Your task to perform on an android device: change the clock display to show seconds Image 0: 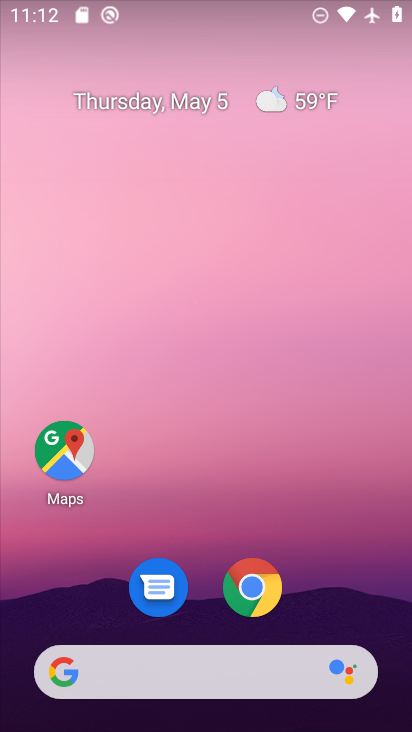
Step 0: drag from (351, 569) to (188, 7)
Your task to perform on an android device: change the clock display to show seconds Image 1: 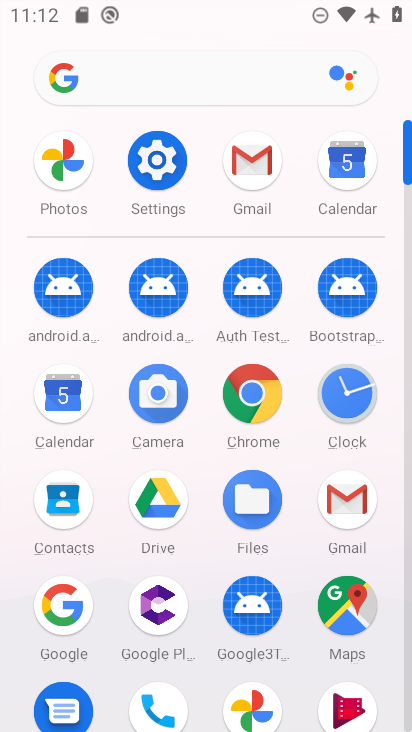
Step 1: drag from (7, 581) to (33, 212)
Your task to perform on an android device: change the clock display to show seconds Image 2: 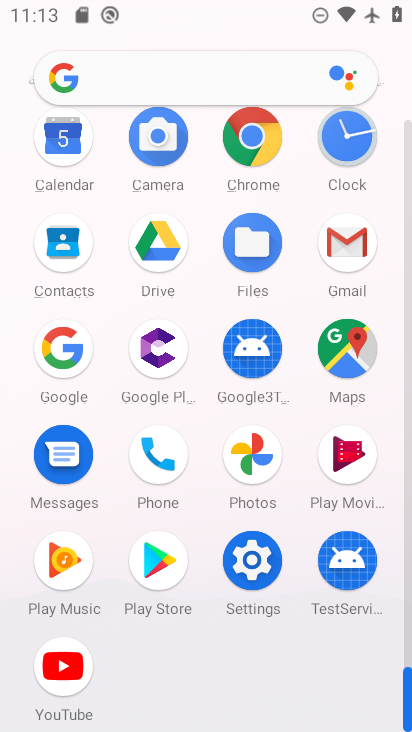
Step 2: drag from (9, 645) to (16, 293)
Your task to perform on an android device: change the clock display to show seconds Image 3: 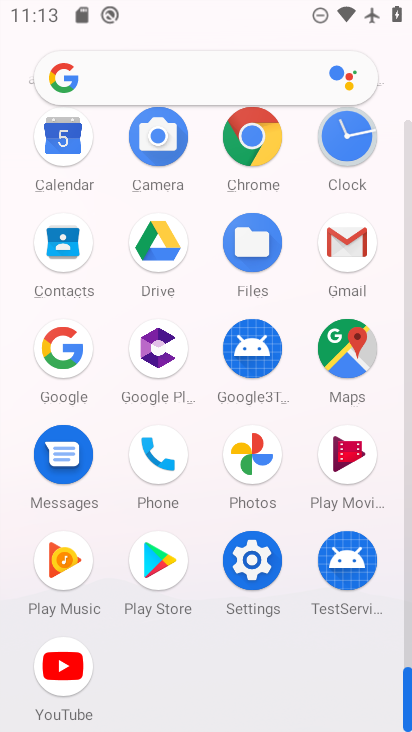
Step 3: click (344, 138)
Your task to perform on an android device: change the clock display to show seconds Image 4: 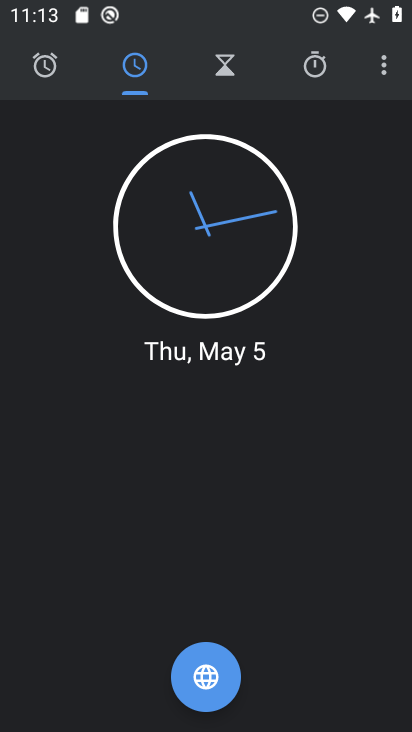
Step 4: click (379, 69)
Your task to perform on an android device: change the clock display to show seconds Image 5: 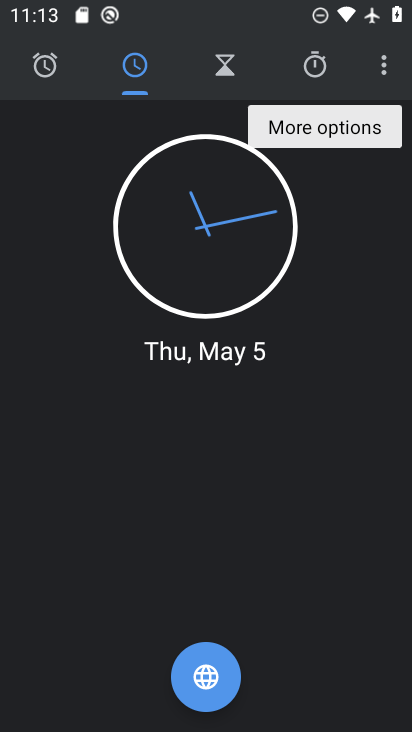
Step 5: click (377, 64)
Your task to perform on an android device: change the clock display to show seconds Image 6: 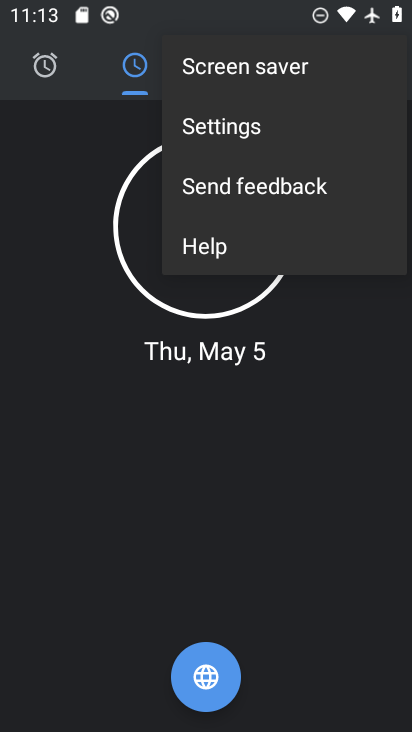
Step 6: click (266, 128)
Your task to perform on an android device: change the clock display to show seconds Image 7: 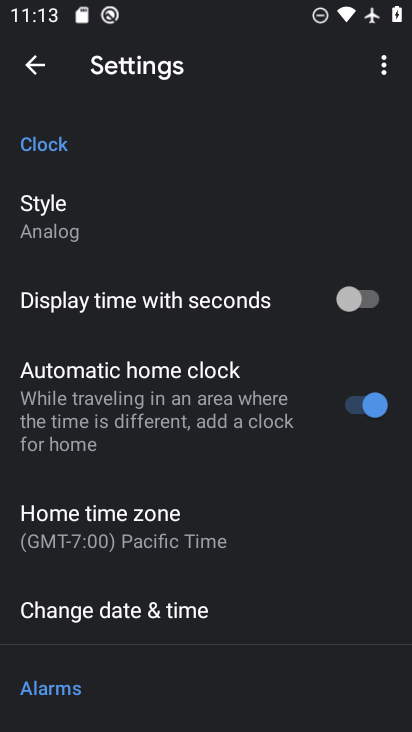
Step 7: click (362, 285)
Your task to perform on an android device: change the clock display to show seconds Image 8: 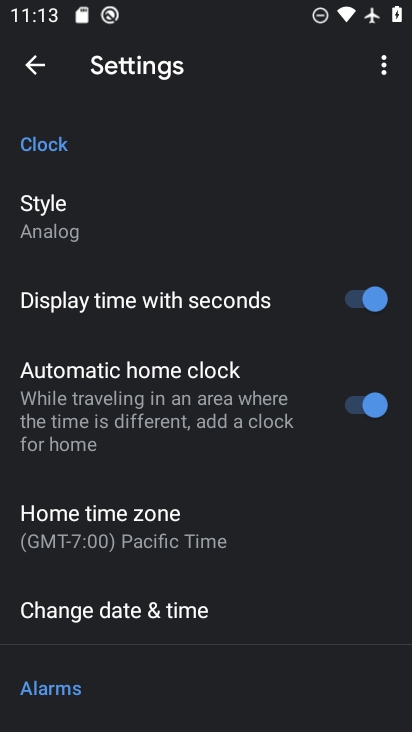
Step 8: task complete